Your task to perform on an android device: uninstall "Duolingo: language lessons" Image 0: 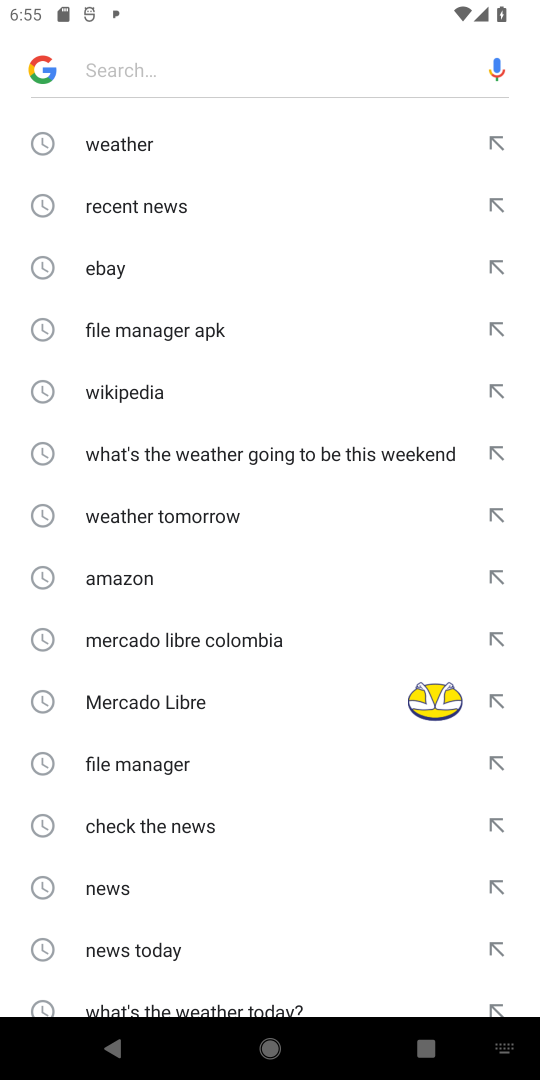
Step 0: press home button
Your task to perform on an android device: uninstall "Duolingo: language lessons" Image 1: 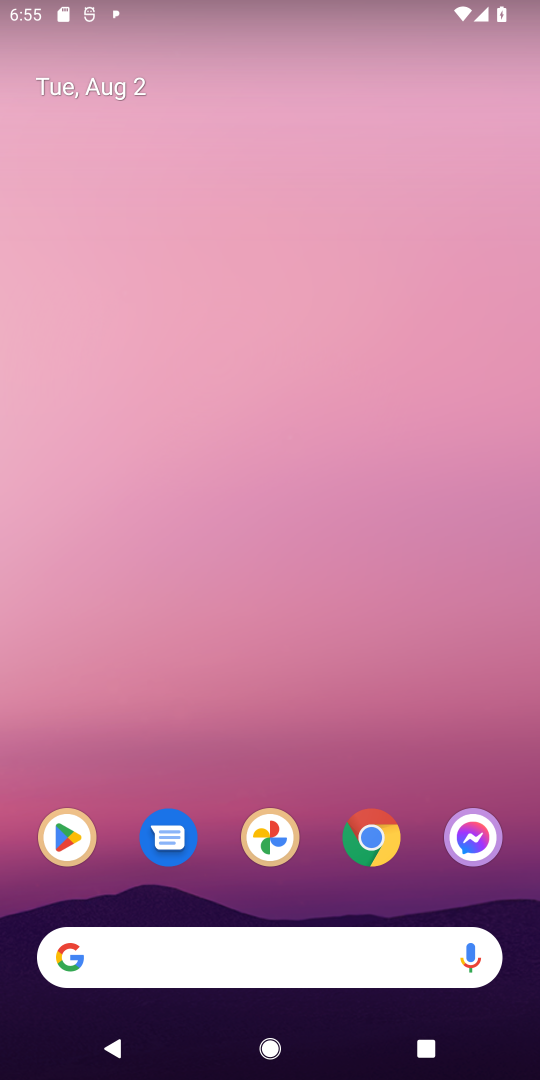
Step 1: click (60, 843)
Your task to perform on an android device: uninstall "Duolingo: language lessons" Image 2: 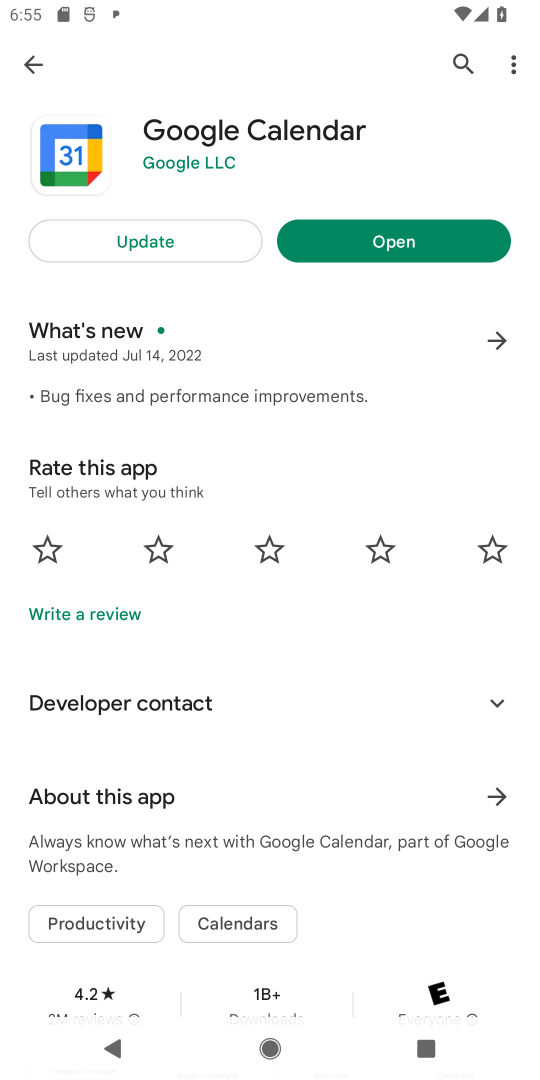
Step 2: click (462, 60)
Your task to perform on an android device: uninstall "Duolingo: language lessons" Image 3: 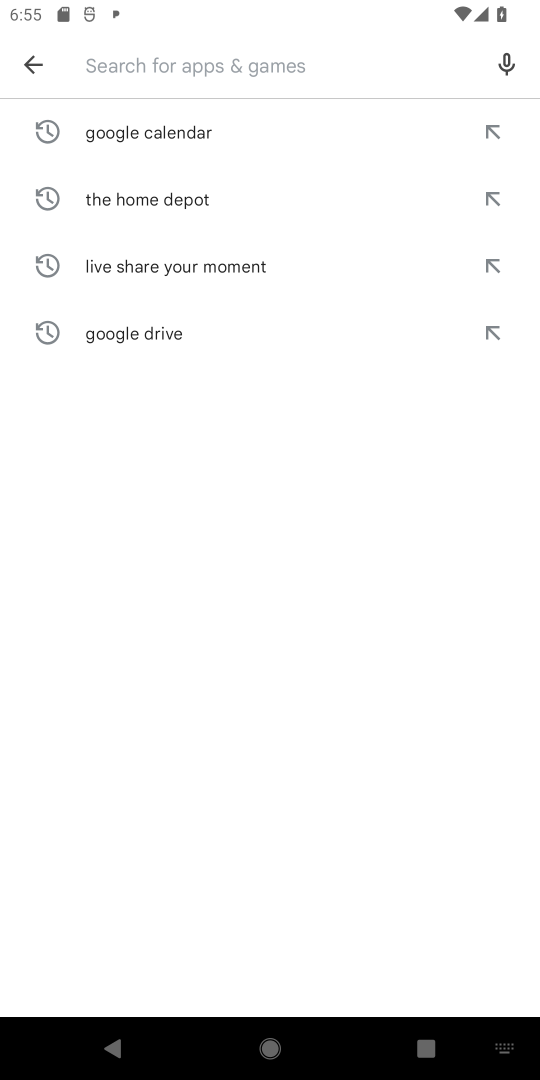
Step 3: type "Duolingo: language lessons"
Your task to perform on an android device: uninstall "Duolingo: language lessons" Image 4: 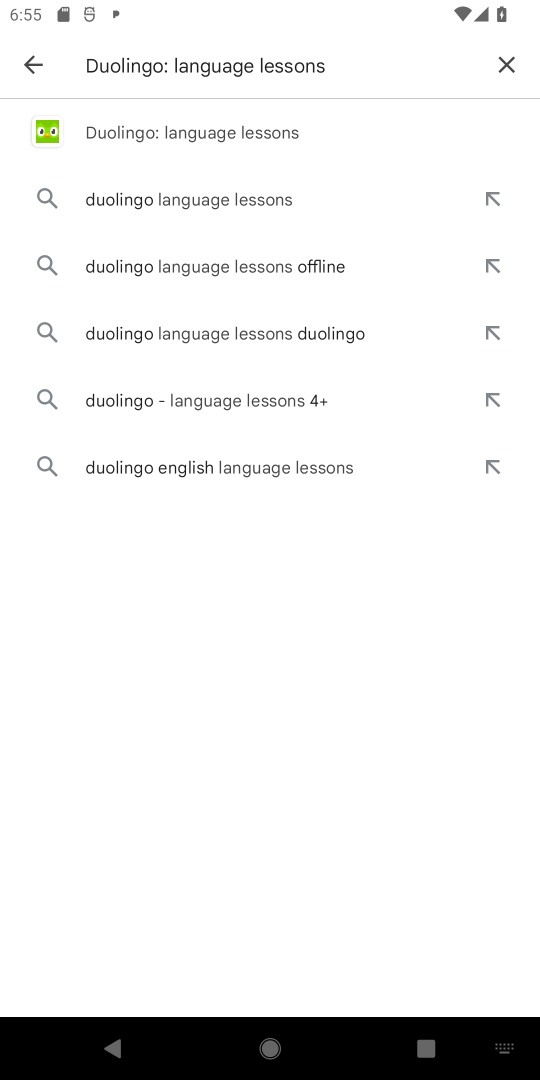
Step 4: click (137, 137)
Your task to perform on an android device: uninstall "Duolingo: language lessons" Image 5: 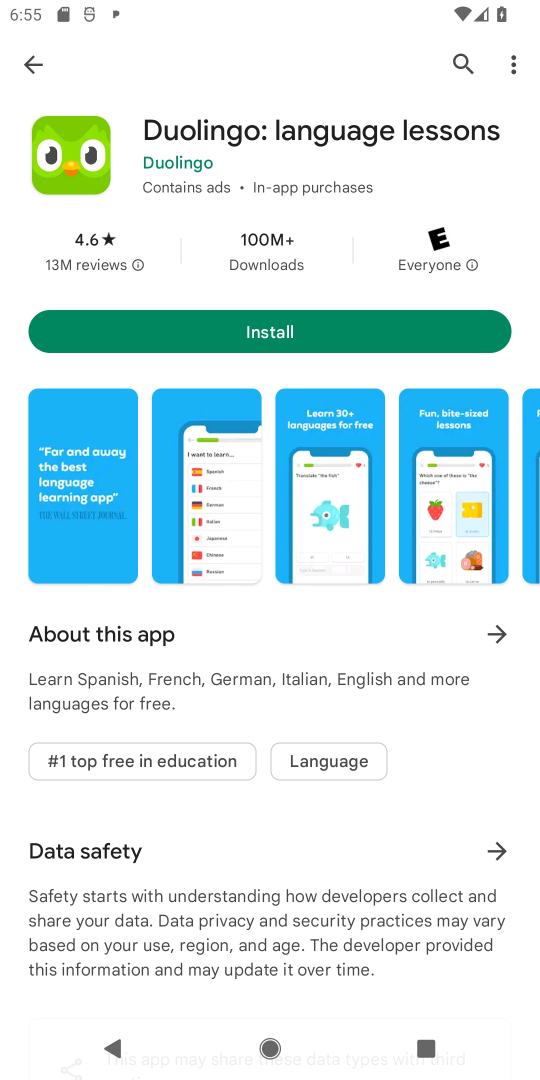
Step 5: task complete